Your task to perform on an android device: Open Google Maps Image 0: 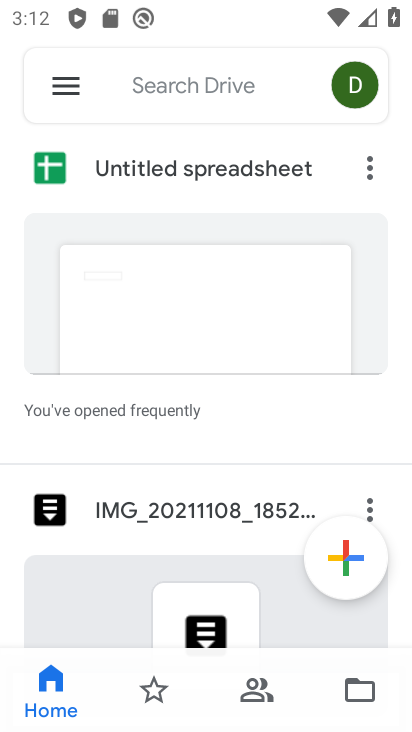
Step 0: press home button
Your task to perform on an android device: Open Google Maps Image 1: 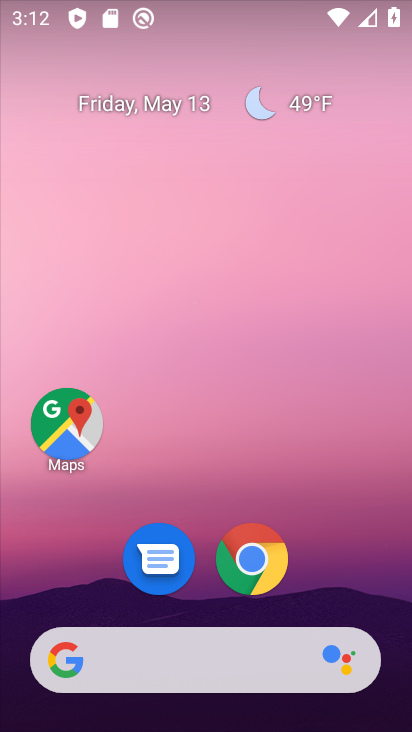
Step 1: click (68, 420)
Your task to perform on an android device: Open Google Maps Image 2: 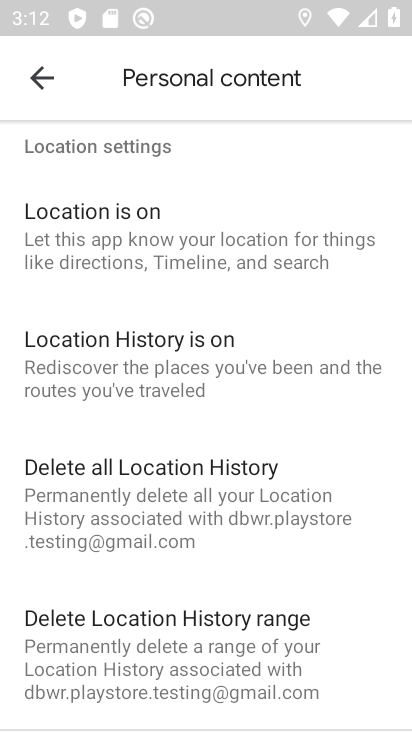
Step 2: press back button
Your task to perform on an android device: Open Google Maps Image 3: 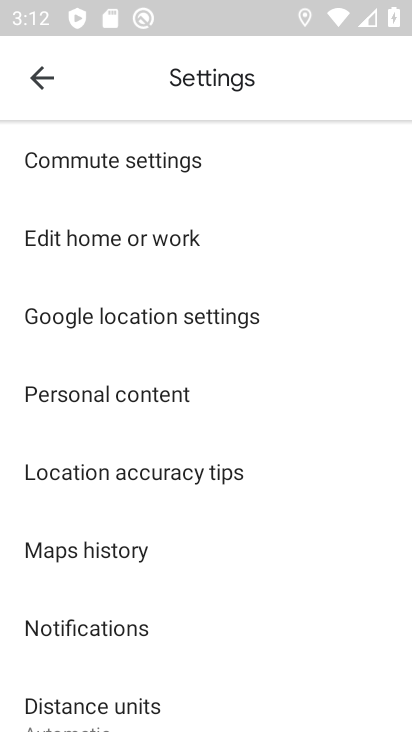
Step 3: press back button
Your task to perform on an android device: Open Google Maps Image 4: 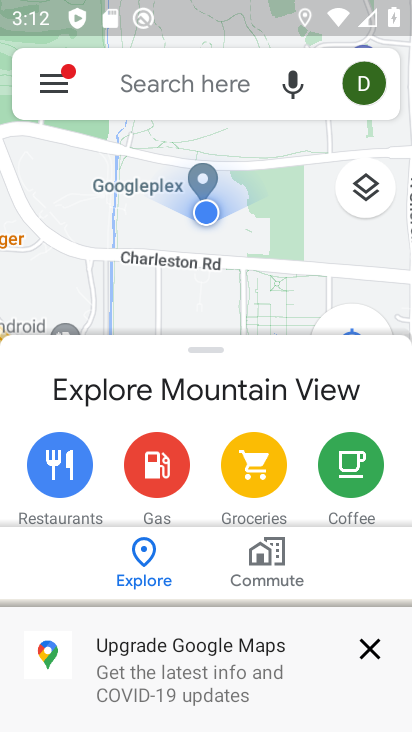
Step 4: click (365, 649)
Your task to perform on an android device: Open Google Maps Image 5: 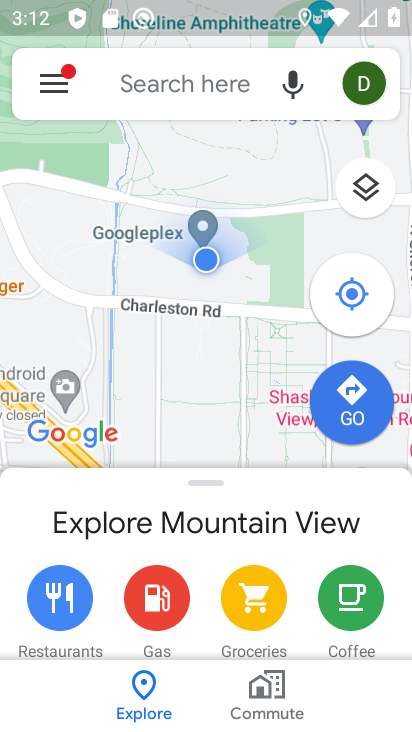
Step 5: task complete